Your task to perform on an android device: Find coffee shops on Maps Image 0: 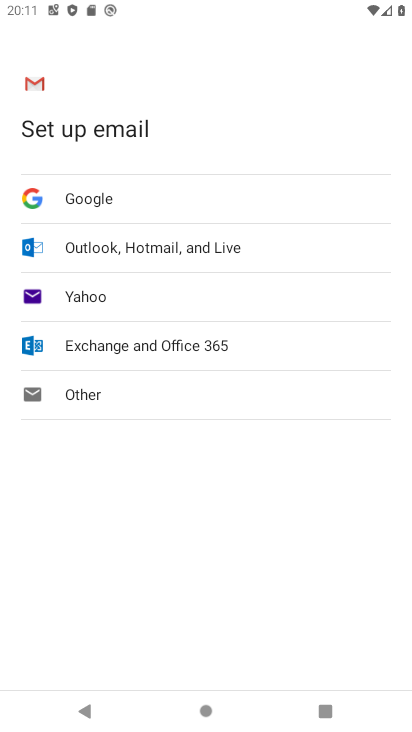
Step 0: press home button
Your task to perform on an android device: Find coffee shops on Maps Image 1: 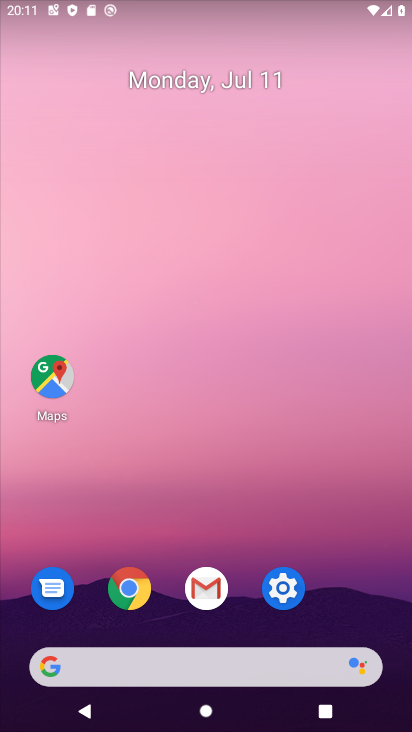
Step 1: click (37, 381)
Your task to perform on an android device: Find coffee shops on Maps Image 2: 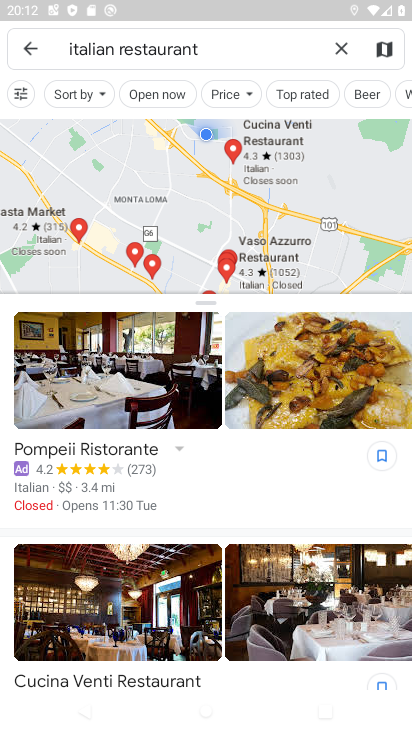
Step 2: click (337, 50)
Your task to perform on an android device: Find coffee shops on Maps Image 3: 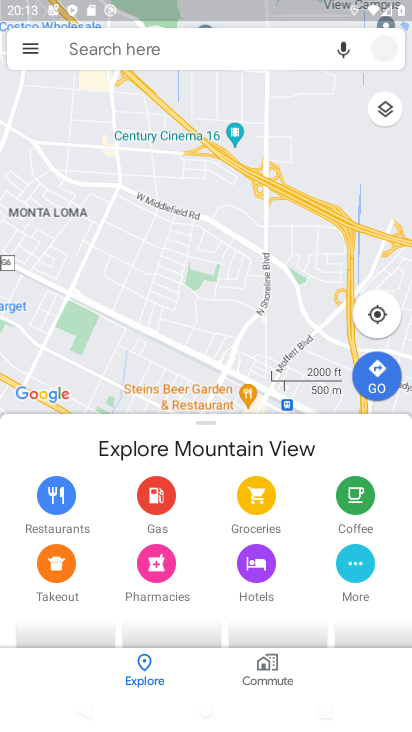
Step 3: click (112, 50)
Your task to perform on an android device: Find coffee shops on Maps Image 4: 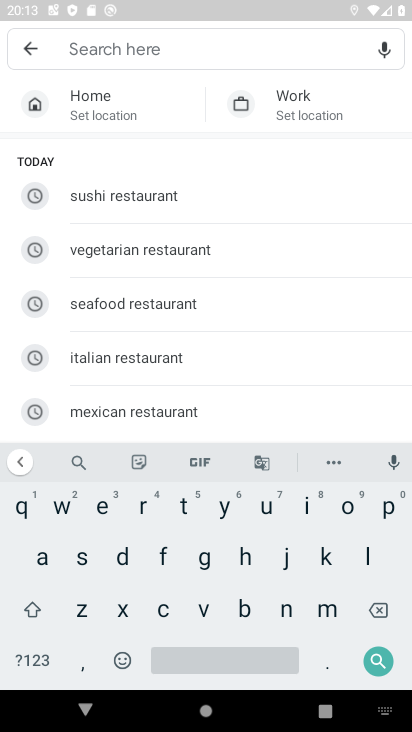
Step 4: click (167, 610)
Your task to perform on an android device: Find coffee shops on Maps Image 5: 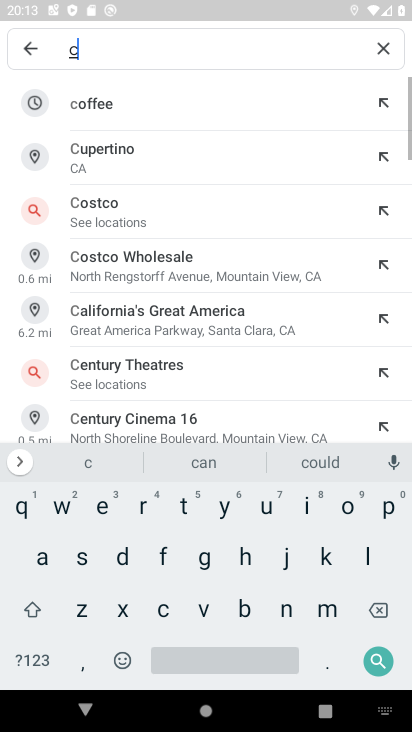
Step 5: click (340, 514)
Your task to perform on an android device: Find coffee shops on Maps Image 6: 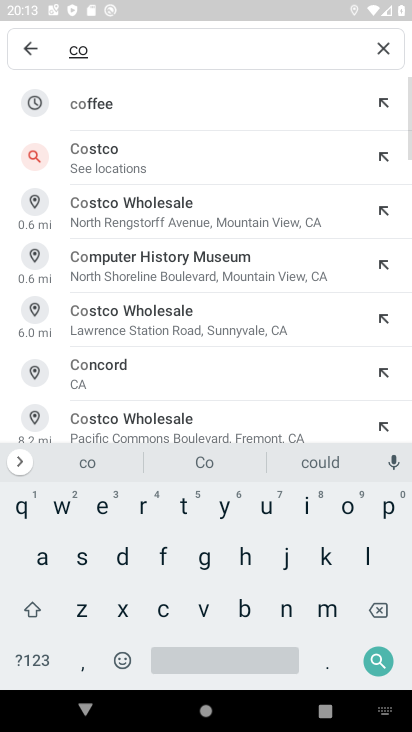
Step 6: click (124, 103)
Your task to perform on an android device: Find coffee shops on Maps Image 7: 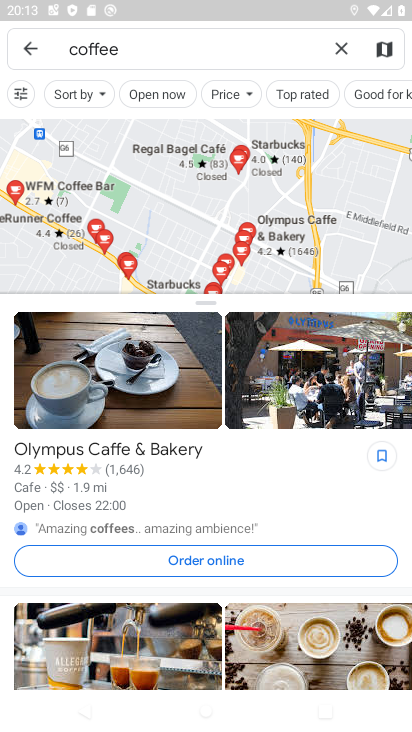
Step 7: task complete